Your task to perform on an android device: Find coffee shops on Maps Image 0: 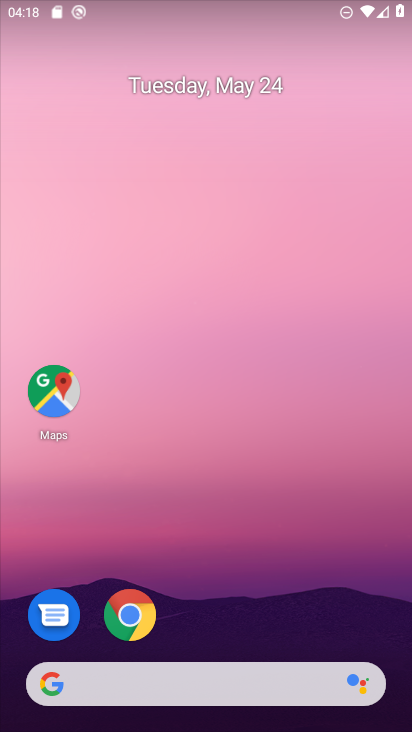
Step 0: drag from (252, 573) to (199, 54)
Your task to perform on an android device: Find coffee shops on Maps Image 1: 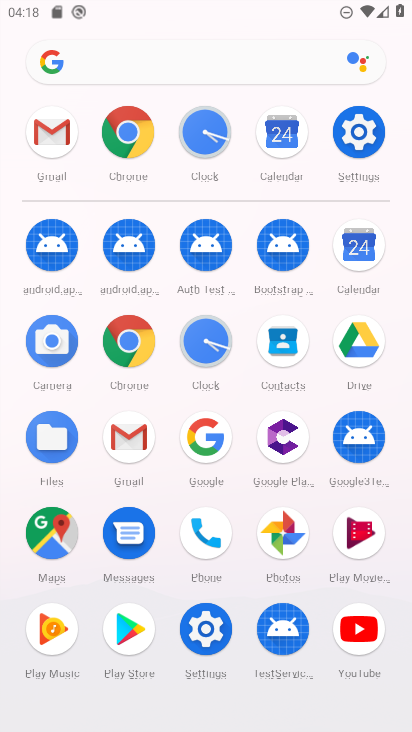
Step 1: click (50, 535)
Your task to perform on an android device: Find coffee shops on Maps Image 2: 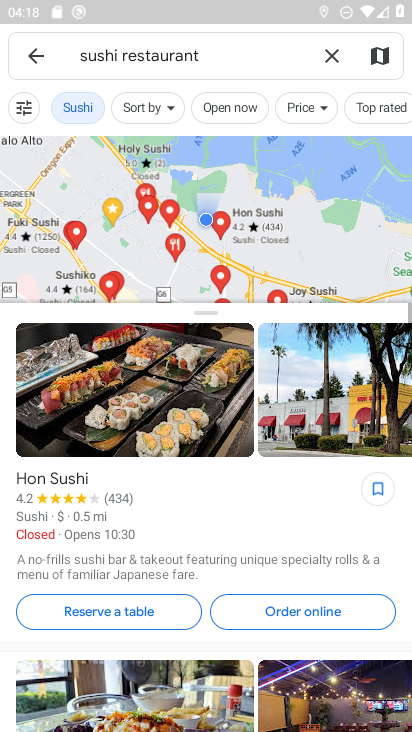
Step 2: click (36, 54)
Your task to perform on an android device: Find coffee shops on Maps Image 3: 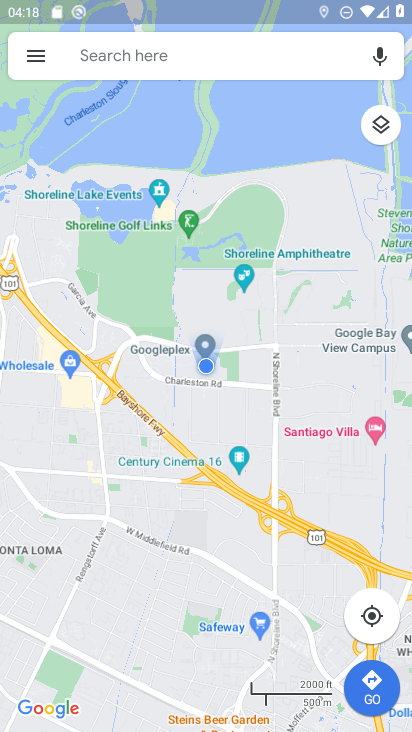
Step 3: click (218, 68)
Your task to perform on an android device: Find coffee shops on Maps Image 4: 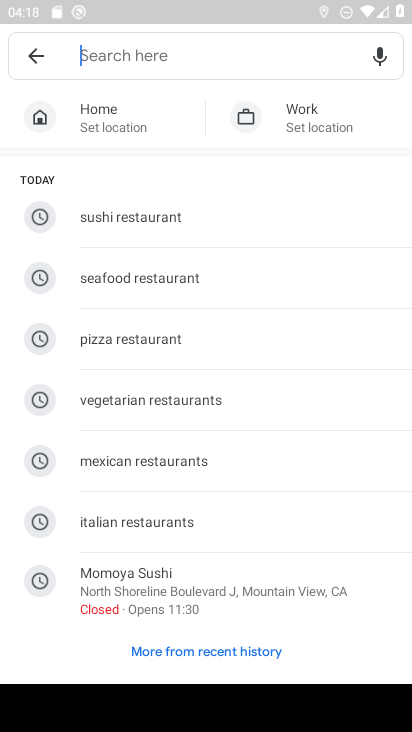
Step 4: type "coffee shops "
Your task to perform on an android device: Find coffee shops on Maps Image 5: 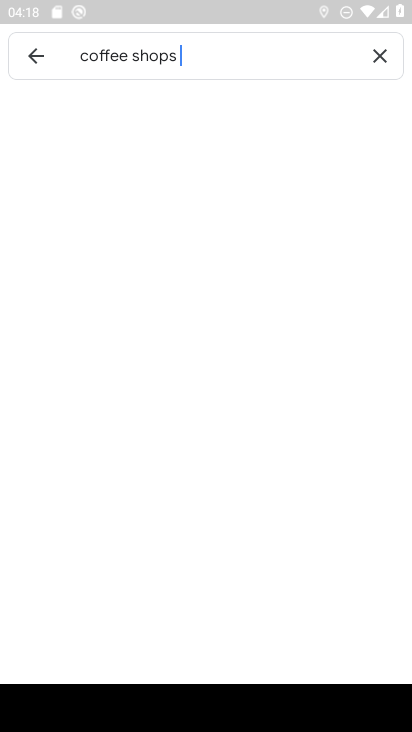
Step 5: type ""
Your task to perform on an android device: Find coffee shops on Maps Image 6: 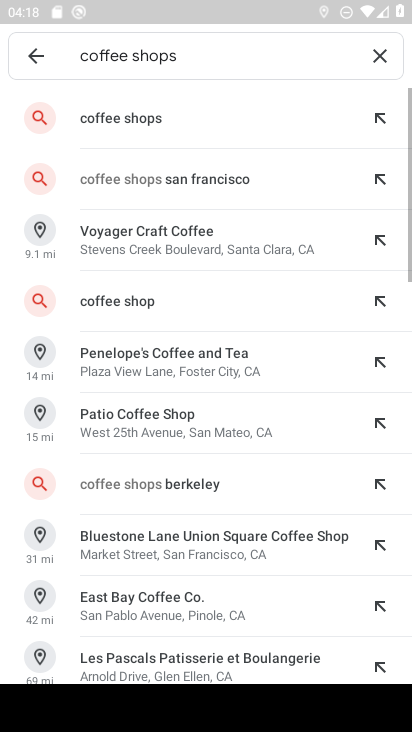
Step 6: click (166, 110)
Your task to perform on an android device: Find coffee shops on Maps Image 7: 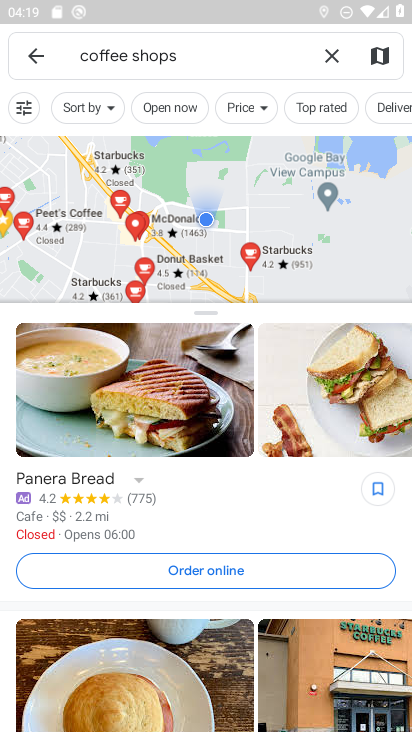
Step 7: task complete